Your task to perform on an android device: refresh tabs in the chrome app Image 0: 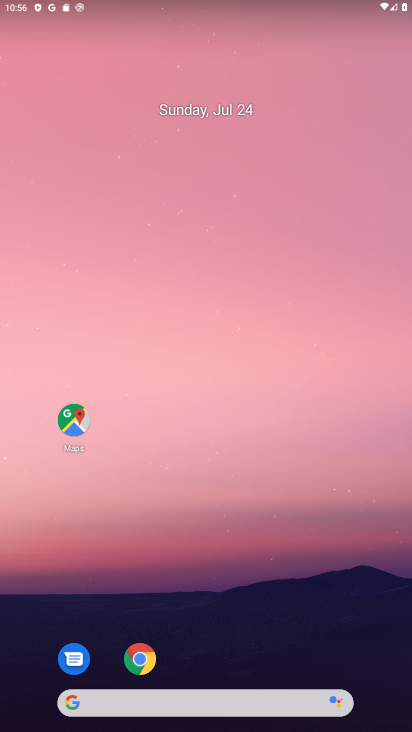
Step 0: drag from (299, 672) to (376, 173)
Your task to perform on an android device: refresh tabs in the chrome app Image 1: 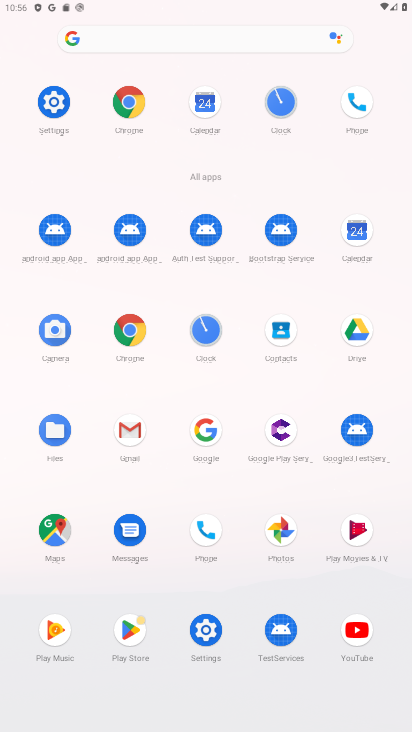
Step 1: click (117, 325)
Your task to perform on an android device: refresh tabs in the chrome app Image 2: 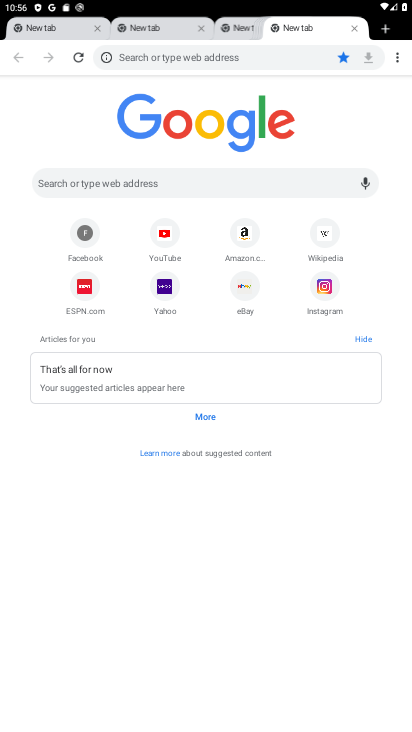
Step 2: click (74, 62)
Your task to perform on an android device: refresh tabs in the chrome app Image 3: 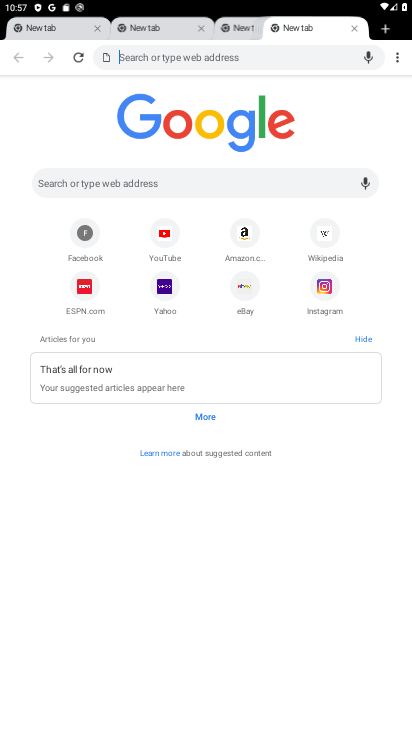
Step 3: click (87, 54)
Your task to perform on an android device: refresh tabs in the chrome app Image 4: 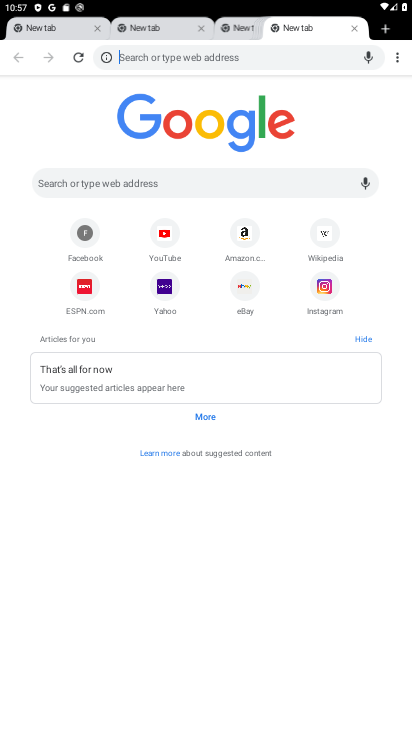
Step 4: task complete